Your task to perform on an android device: Is it going to rain this weekend? Image 0: 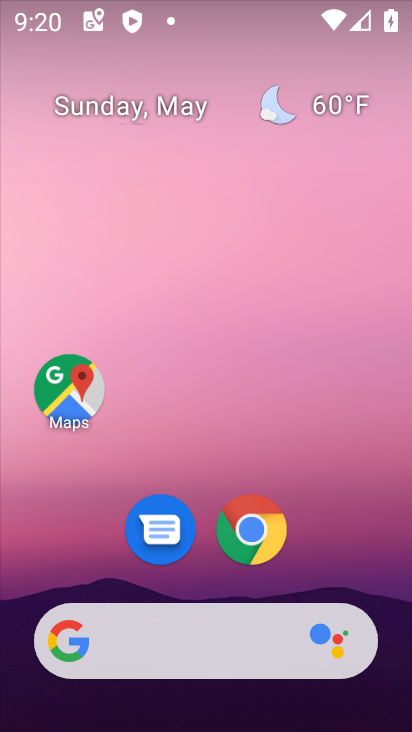
Step 0: click (237, 648)
Your task to perform on an android device: Is it going to rain this weekend? Image 1: 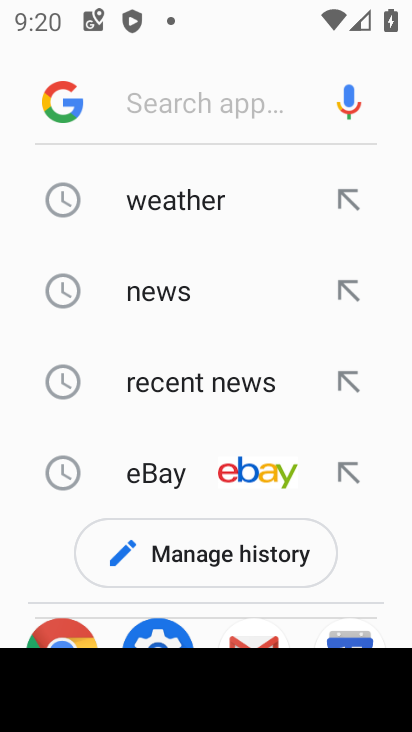
Step 1: click (200, 202)
Your task to perform on an android device: Is it going to rain this weekend? Image 2: 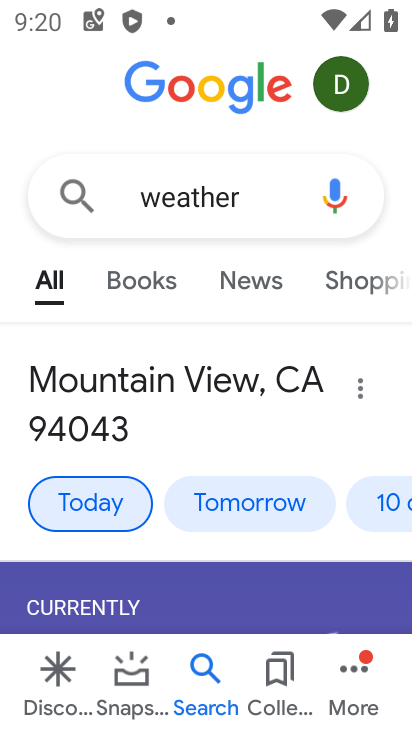
Step 2: click (396, 515)
Your task to perform on an android device: Is it going to rain this weekend? Image 3: 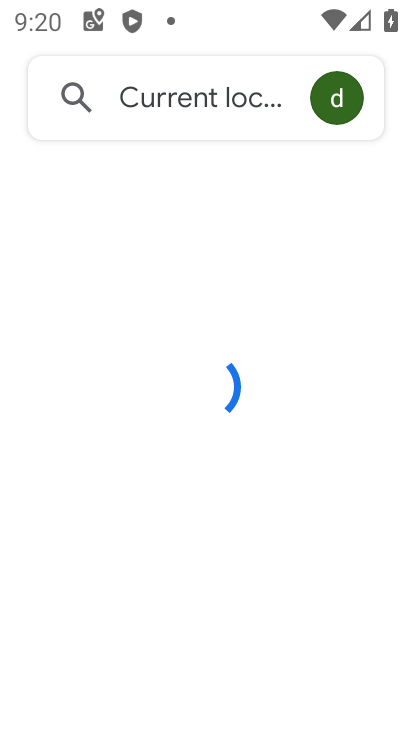
Step 3: click (396, 515)
Your task to perform on an android device: Is it going to rain this weekend? Image 4: 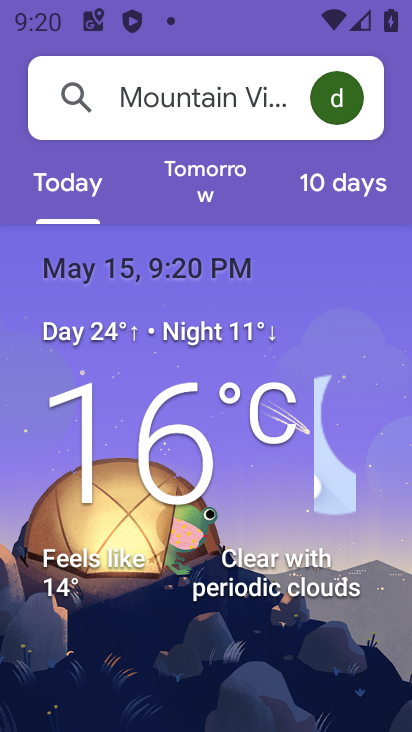
Step 4: drag from (269, 646) to (290, 385)
Your task to perform on an android device: Is it going to rain this weekend? Image 5: 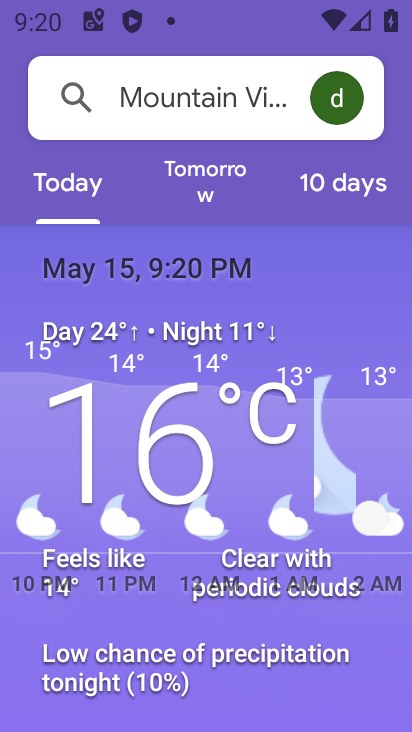
Step 5: click (328, 181)
Your task to perform on an android device: Is it going to rain this weekend? Image 6: 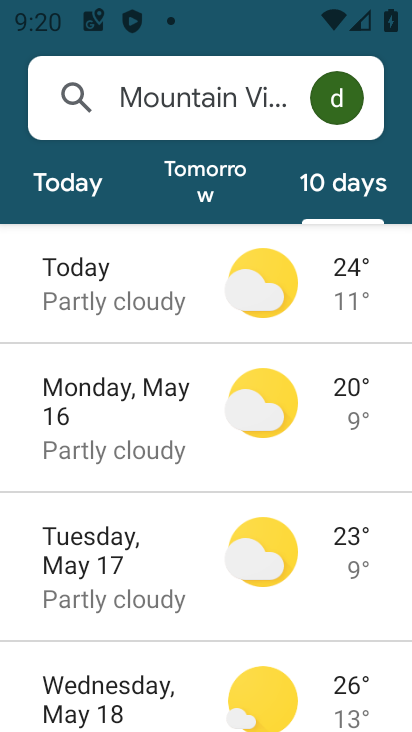
Step 6: task complete